Your task to perform on an android device: Open my contact list Image 0: 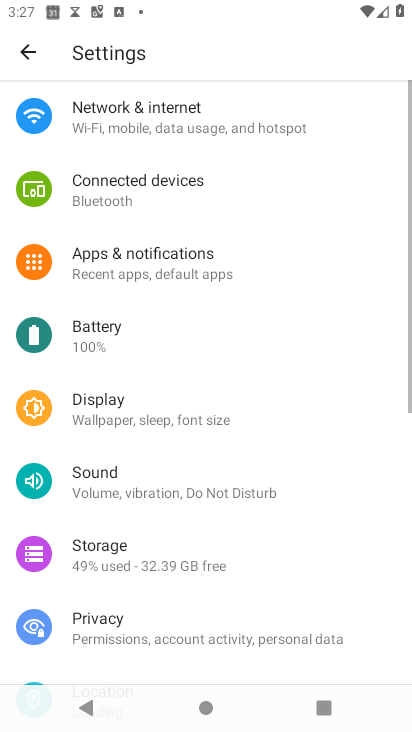
Step 0: press home button
Your task to perform on an android device: Open my contact list Image 1: 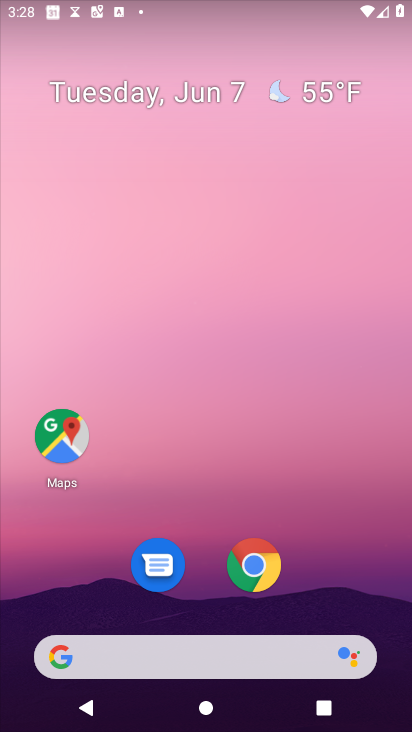
Step 1: drag from (193, 491) to (261, 0)
Your task to perform on an android device: Open my contact list Image 2: 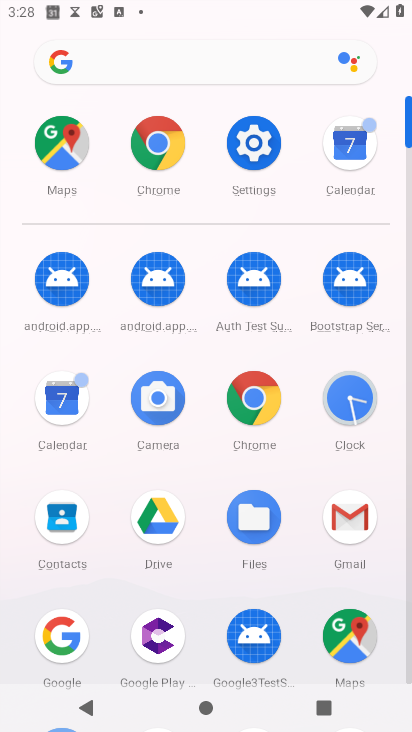
Step 2: click (69, 402)
Your task to perform on an android device: Open my contact list Image 3: 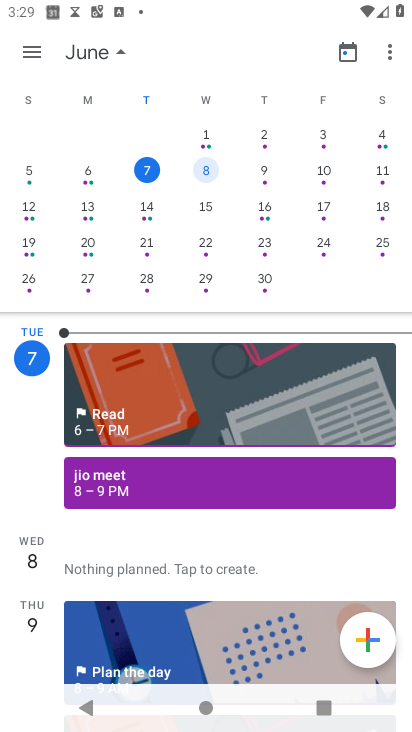
Step 3: press home button
Your task to perform on an android device: Open my contact list Image 4: 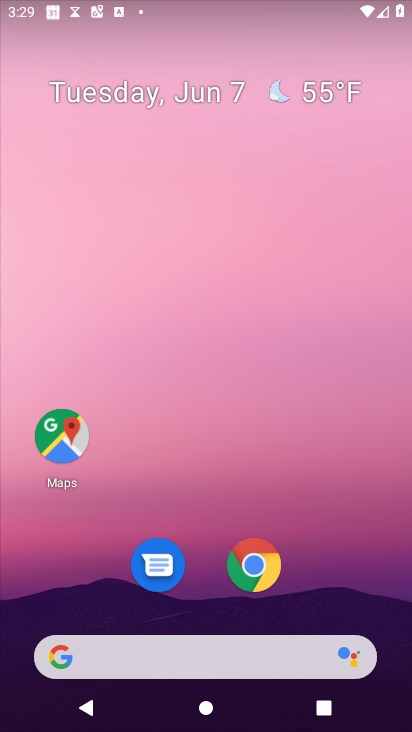
Step 4: drag from (259, 627) to (229, 0)
Your task to perform on an android device: Open my contact list Image 5: 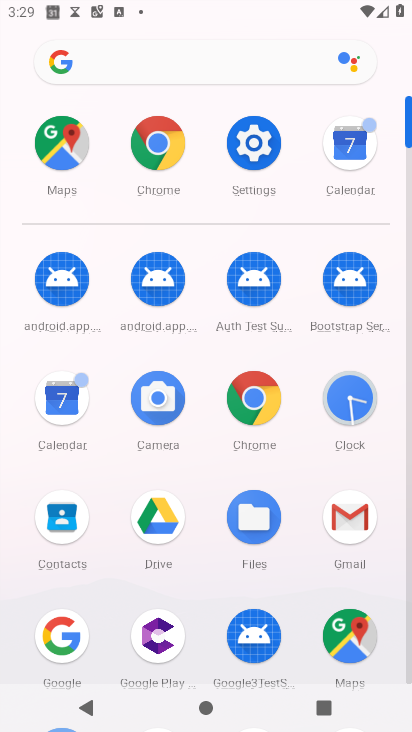
Step 5: click (79, 528)
Your task to perform on an android device: Open my contact list Image 6: 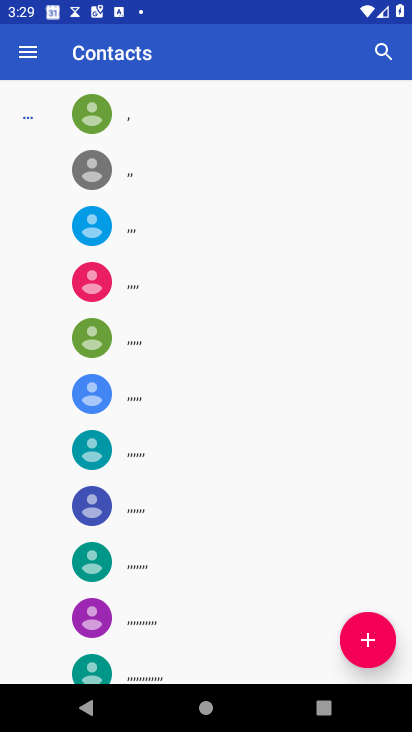
Step 6: task complete